Your task to perform on an android device: Open Google Chrome Image 0: 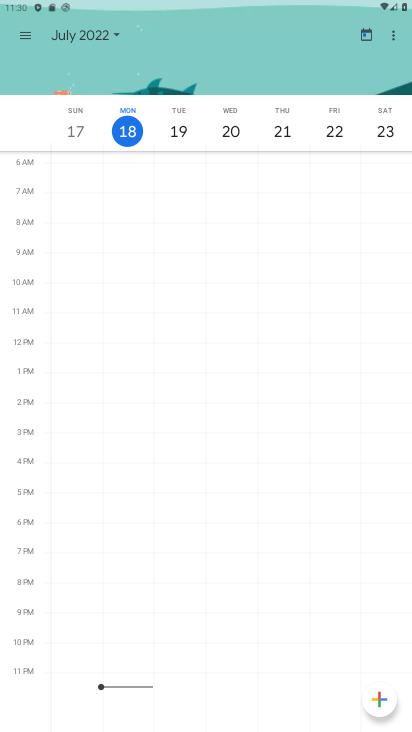
Step 0: press home button
Your task to perform on an android device: Open Google Chrome Image 1: 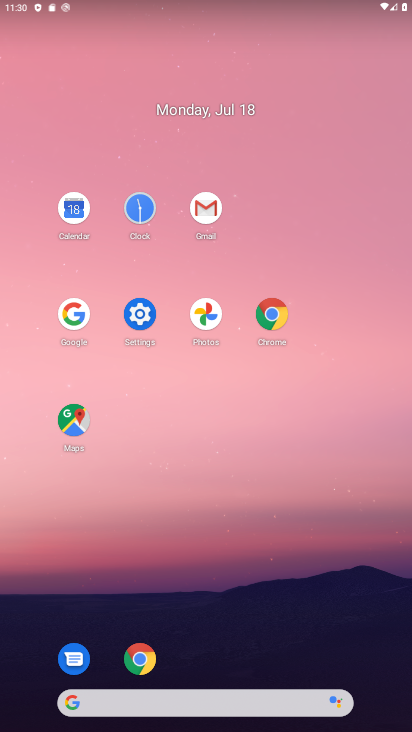
Step 1: click (144, 649)
Your task to perform on an android device: Open Google Chrome Image 2: 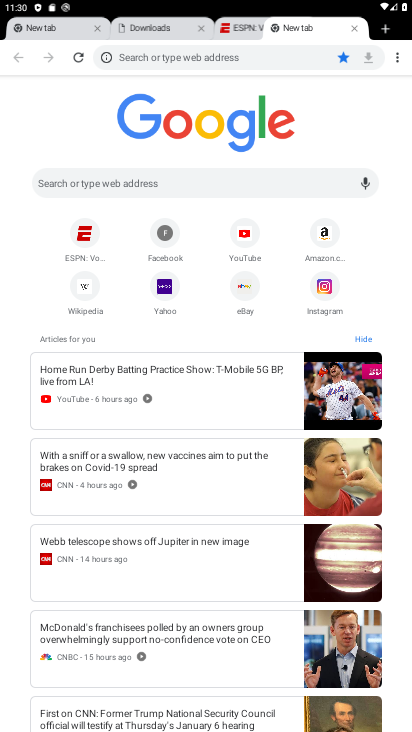
Step 2: task complete